Your task to perform on an android device: Open calendar and show me the second week of next month Image 0: 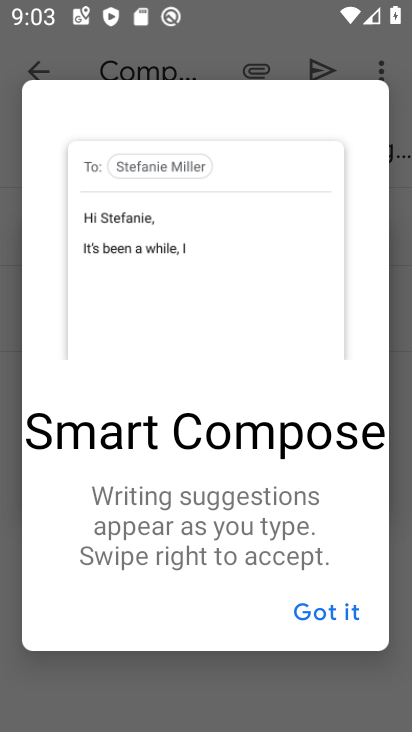
Step 0: press home button
Your task to perform on an android device: Open calendar and show me the second week of next month Image 1: 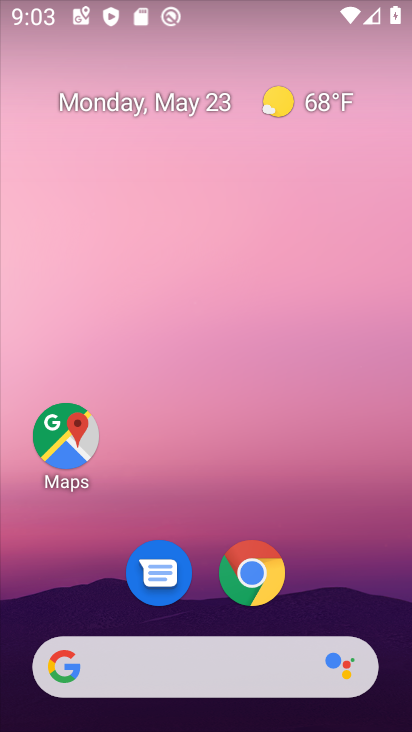
Step 1: drag from (328, 577) to (350, 3)
Your task to perform on an android device: Open calendar and show me the second week of next month Image 2: 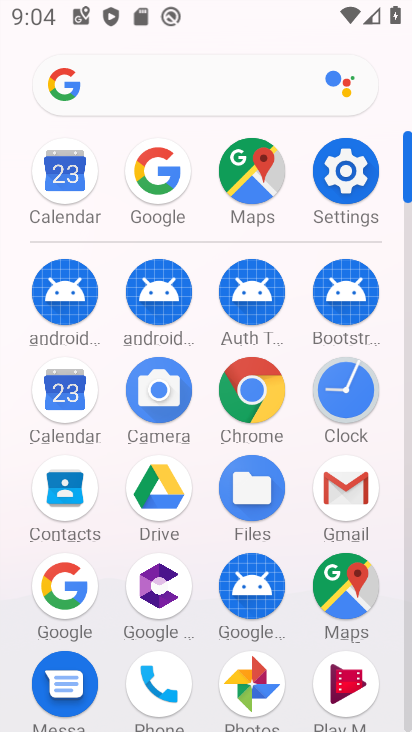
Step 2: click (50, 403)
Your task to perform on an android device: Open calendar and show me the second week of next month Image 3: 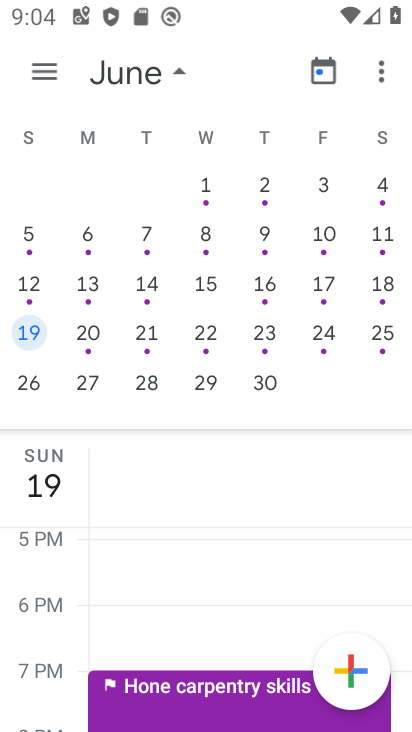
Step 3: click (39, 280)
Your task to perform on an android device: Open calendar and show me the second week of next month Image 4: 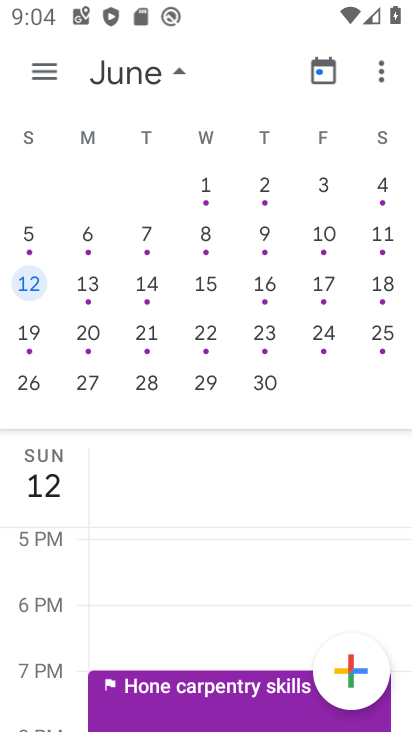
Step 4: click (34, 245)
Your task to perform on an android device: Open calendar and show me the second week of next month Image 5: 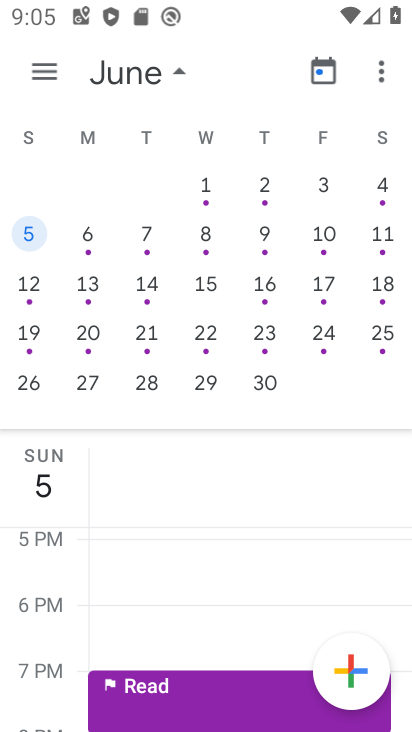
Step 5: click (34, 242)
Your task to perform on an android device: Open calendar and show me the second week of next month Image 6: 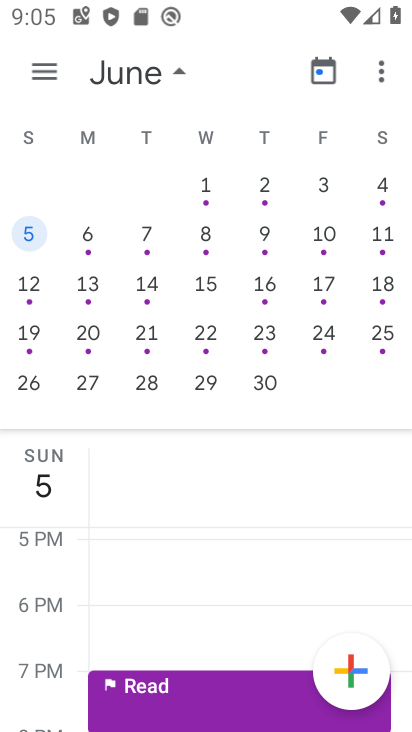
Step 6: task complete